Your task to perform on an android device: Open Google Chrome and open the bookmarks view Image 0: 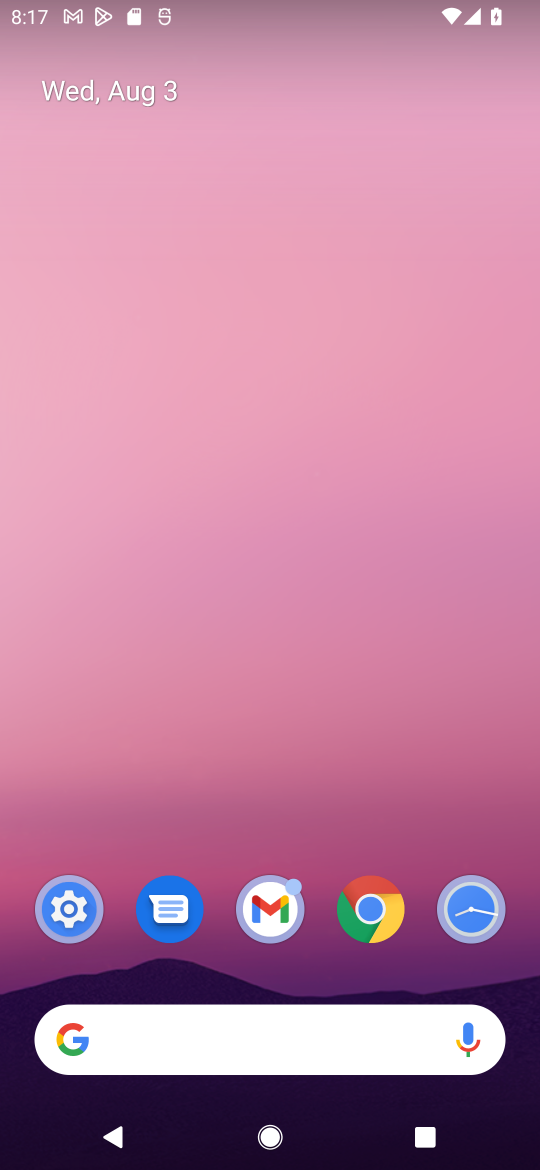
Step 0: press home button
Your task to perform on an android device: Open Google Chrome and open the bookmarks view Image 1: 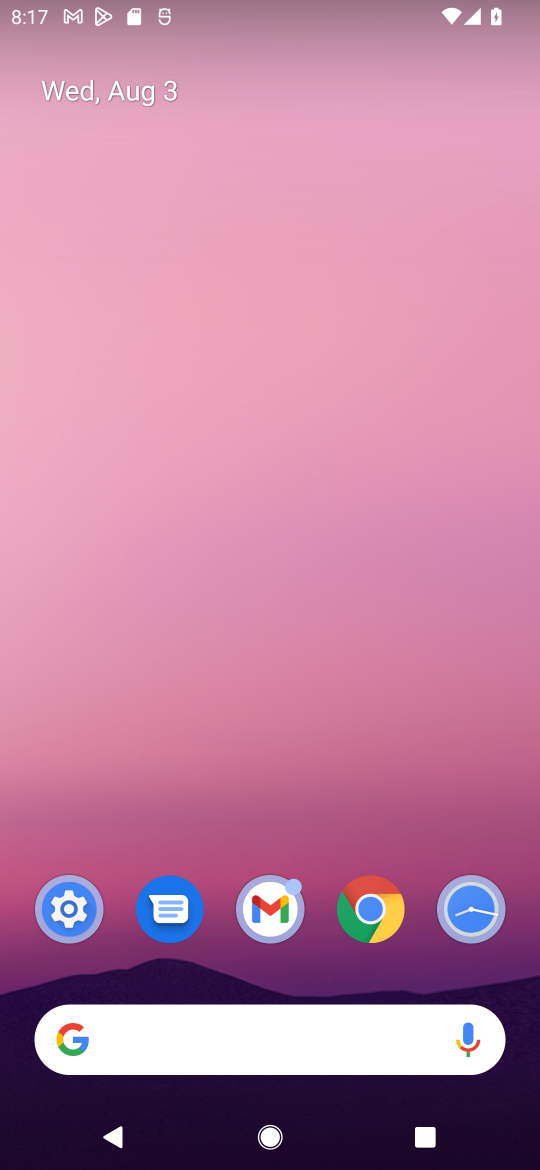
Step 1: drag from (348, 808) to (354, 92)
Your task to perform on an android device: Open Google Chrome and open the bookmarks view Image 2: 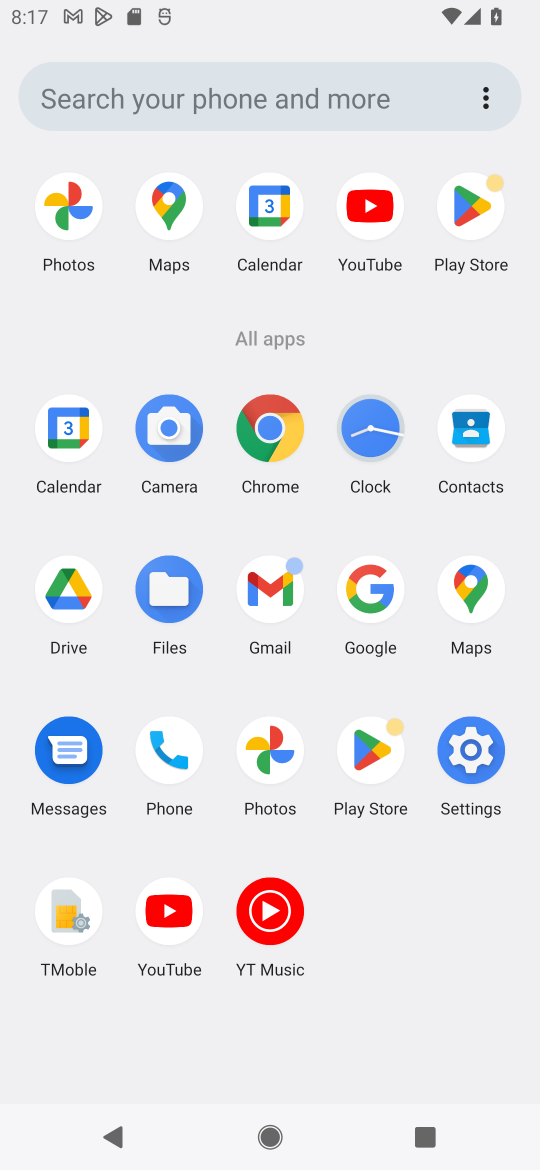
Step 2: click (276, 429)
Your task to perform on an android device: Open Google Chrome and open the bookmarks view Image 3: 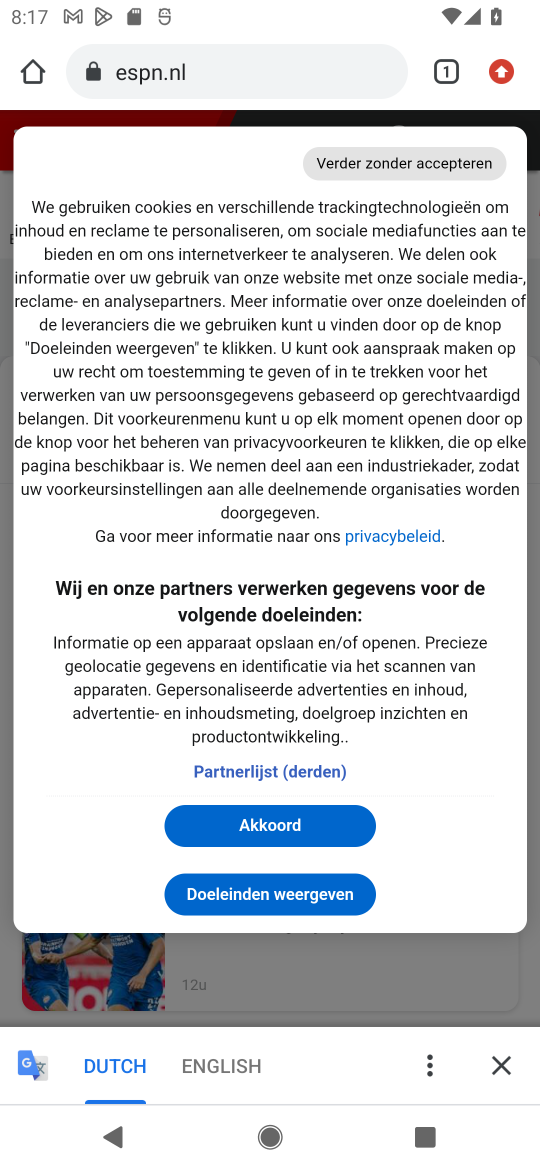
Step 3: click (507, 75)
Your task to perform on an android device: Open Google Chrome and open the bookmarks view Image 4: 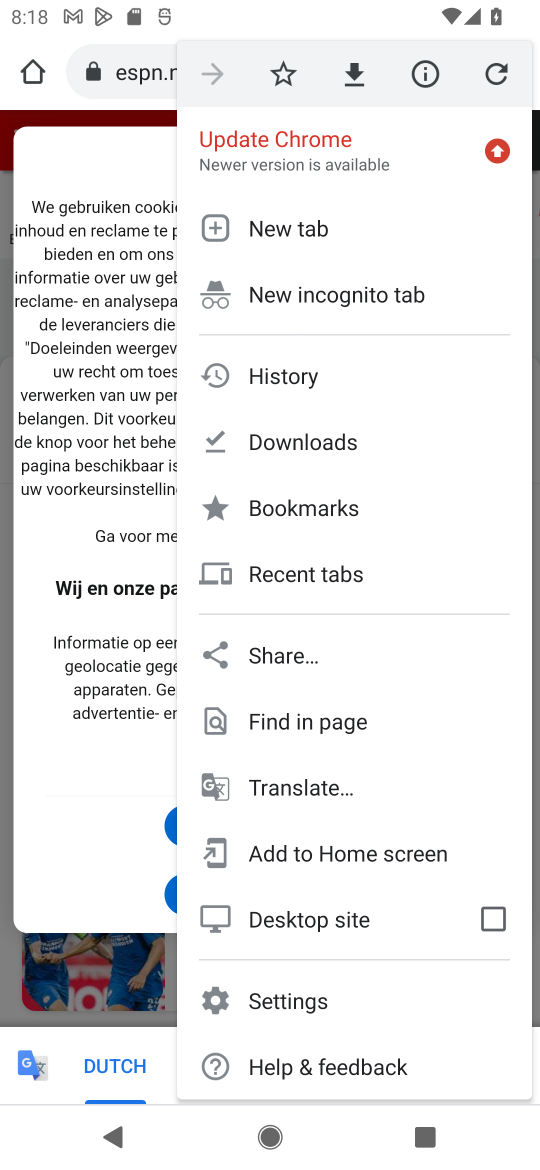
Step 4: click (343, 515)
Your task to perform on an android device: Open Google Chrome and open the bookmarks view Image 5: 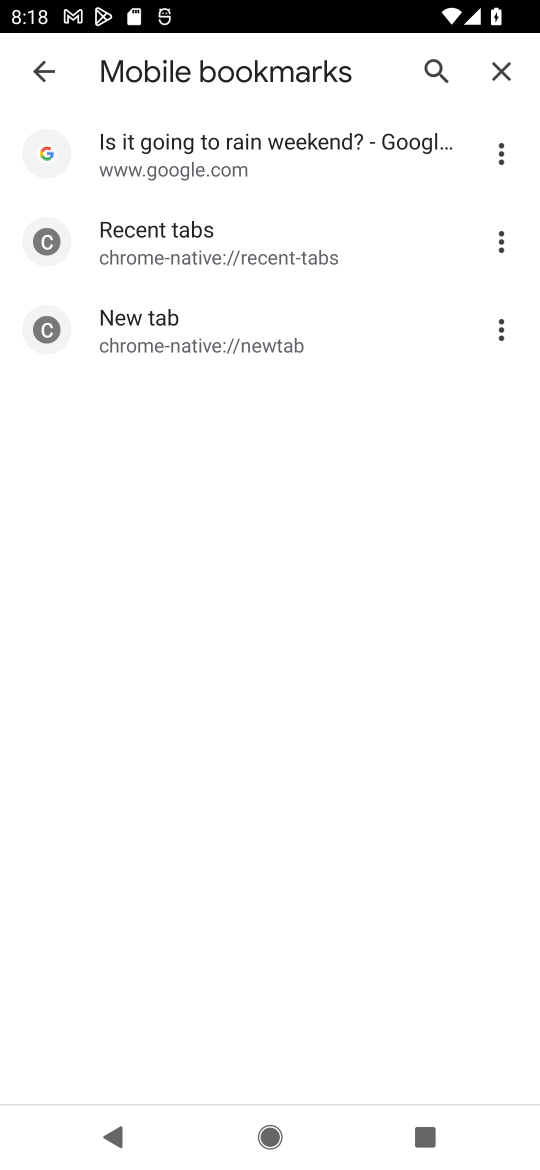
Step 5: task complete